Your task to perform on an android device: toggle sleep mode Image 0: 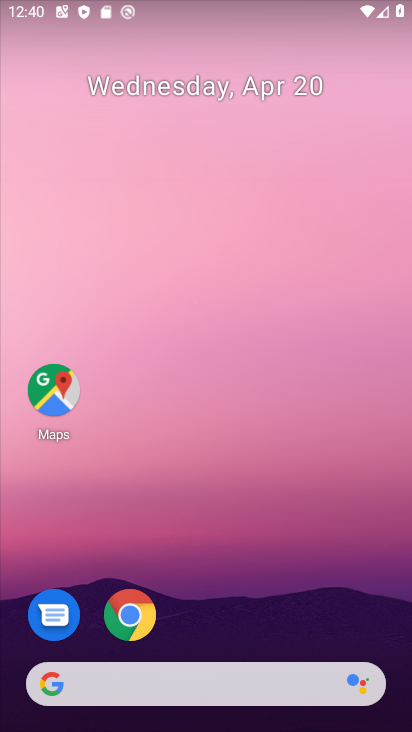
Step 0: drag from (348, 309) to (332, 163)
Your task to perform on an android device: toggle sleep mode Image 1: 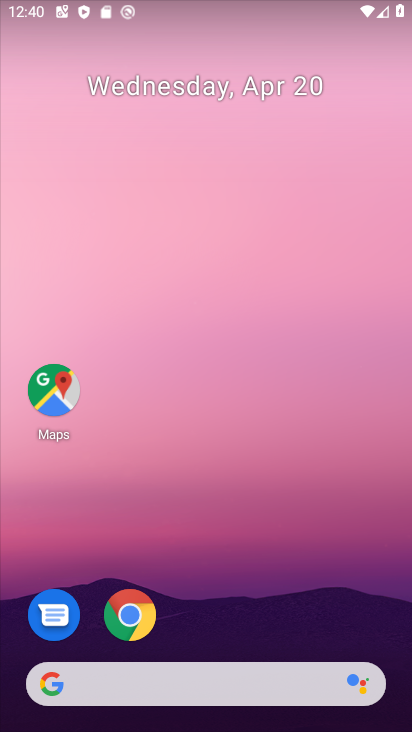
Step 1: drag from (340, 317) to (315, 128)
Your task to perform on an android device: toggle sleep mode Image 2: 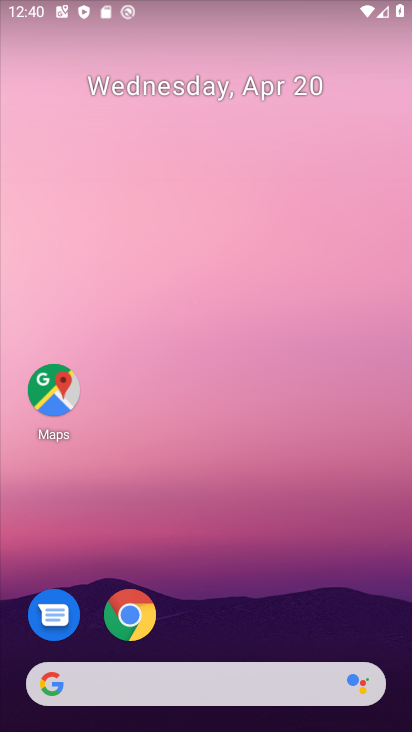
Step 2: drag from (371, 491) to (327, 185)
Your task to perform on an android device: toggle sleep mode Image 3: 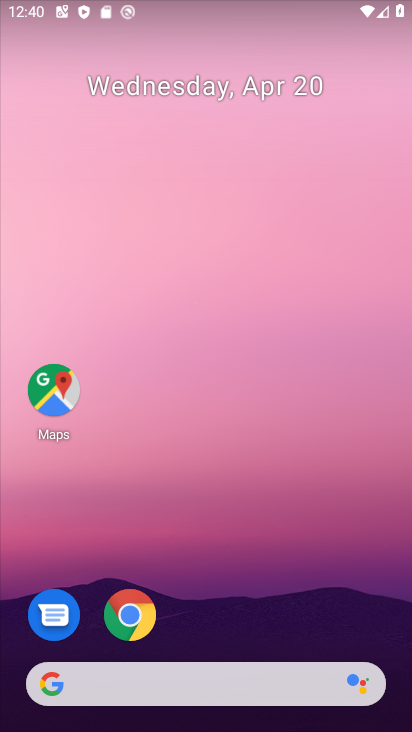
Step 3: drag from (375, 540) to (359, 90)
Your task to perform on an android device: toggle sleep mode Image 4: 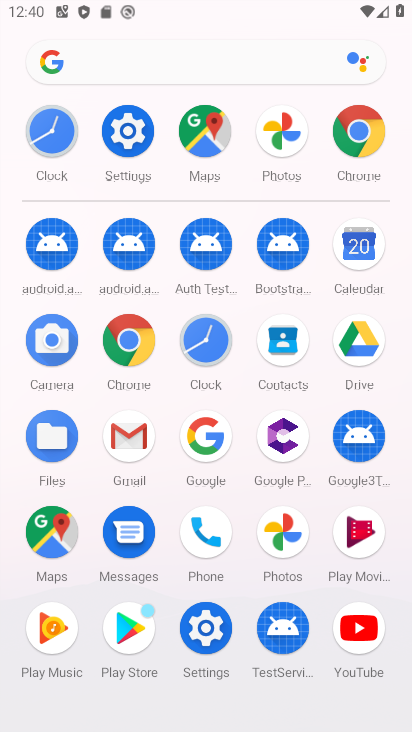
Step 4: click (192, 635)
Your task to perform on an android device: toggle sleep mode Image 5: 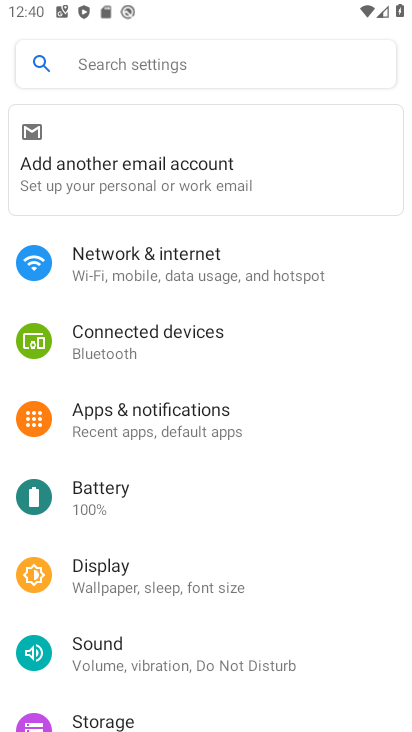
Step 5: drag from (268, 660) to (260, 355)
Your task to perform on an android device: toggle sleep mode Image 6: 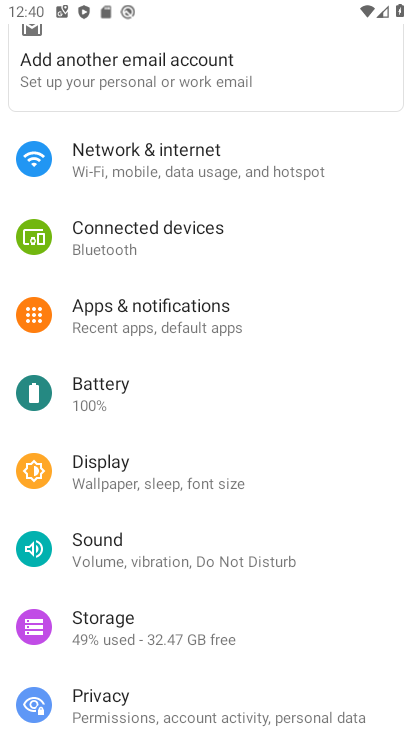
Step 6: drag from (355, 647) to (344, 378)
Your task to perform on an android device: toggle sleep mode Image 7: 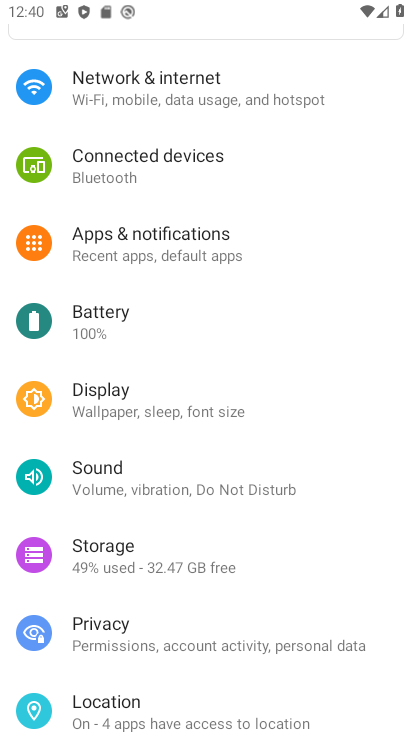
Step 7: click (73, 400)
Your task to perform on an android device: toggle sleep mode Image 8: 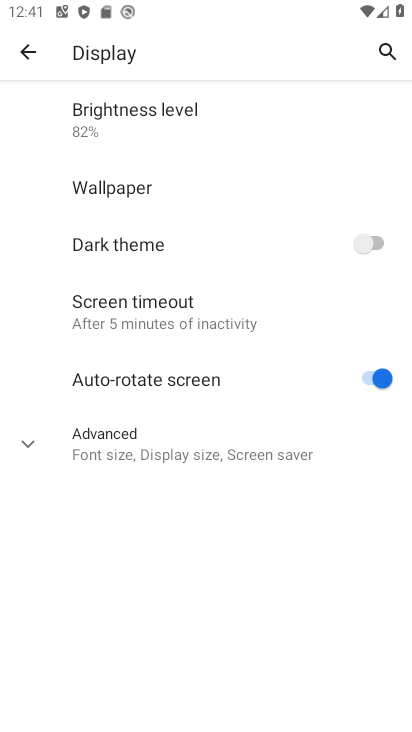
Step 8: click (133, 313)
Your task to perform on an android device: toggle sleep mode Image 9: 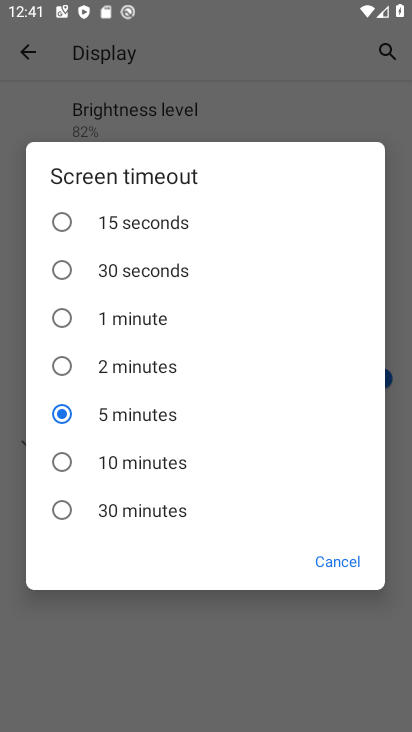
Step 9: click (58, 365)
Your task to perform on an android device: toggle sleep mode Image 10: 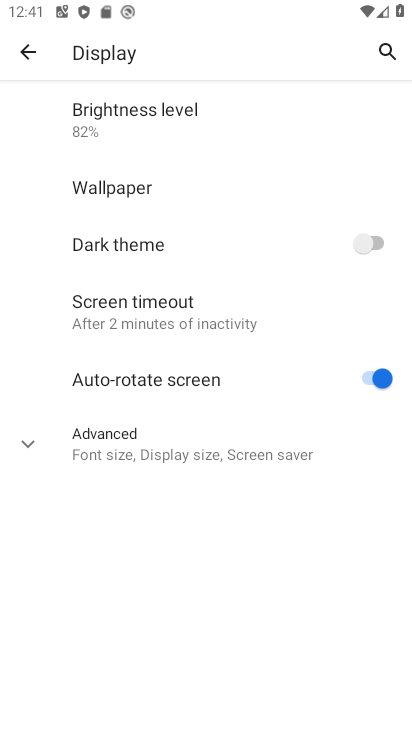
Step 10: task complete